Your task to perform on an android device: What does the iPhone 8 look like? Image 0: 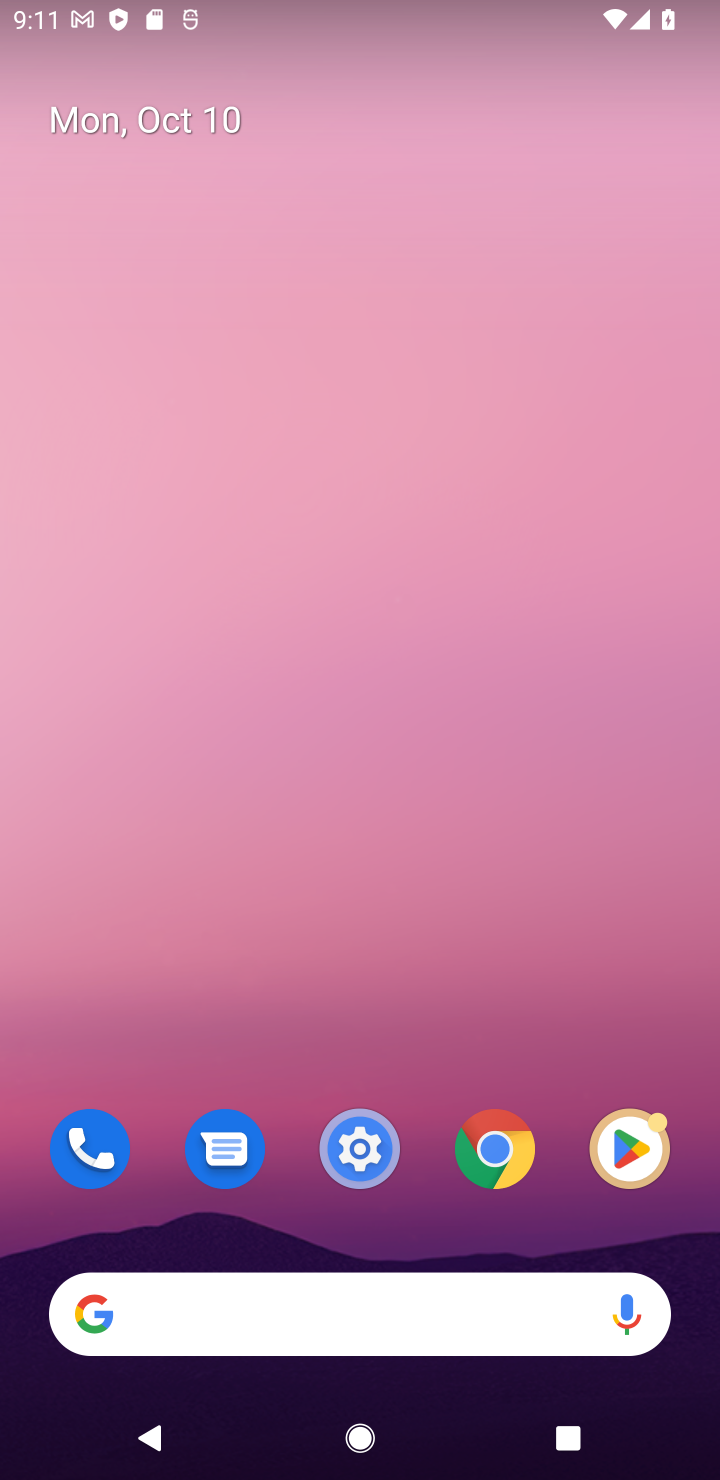
Step 0: click (355, 1317)
Your task to perform on an android device: What does the iPhone 8 look like? Image 1: 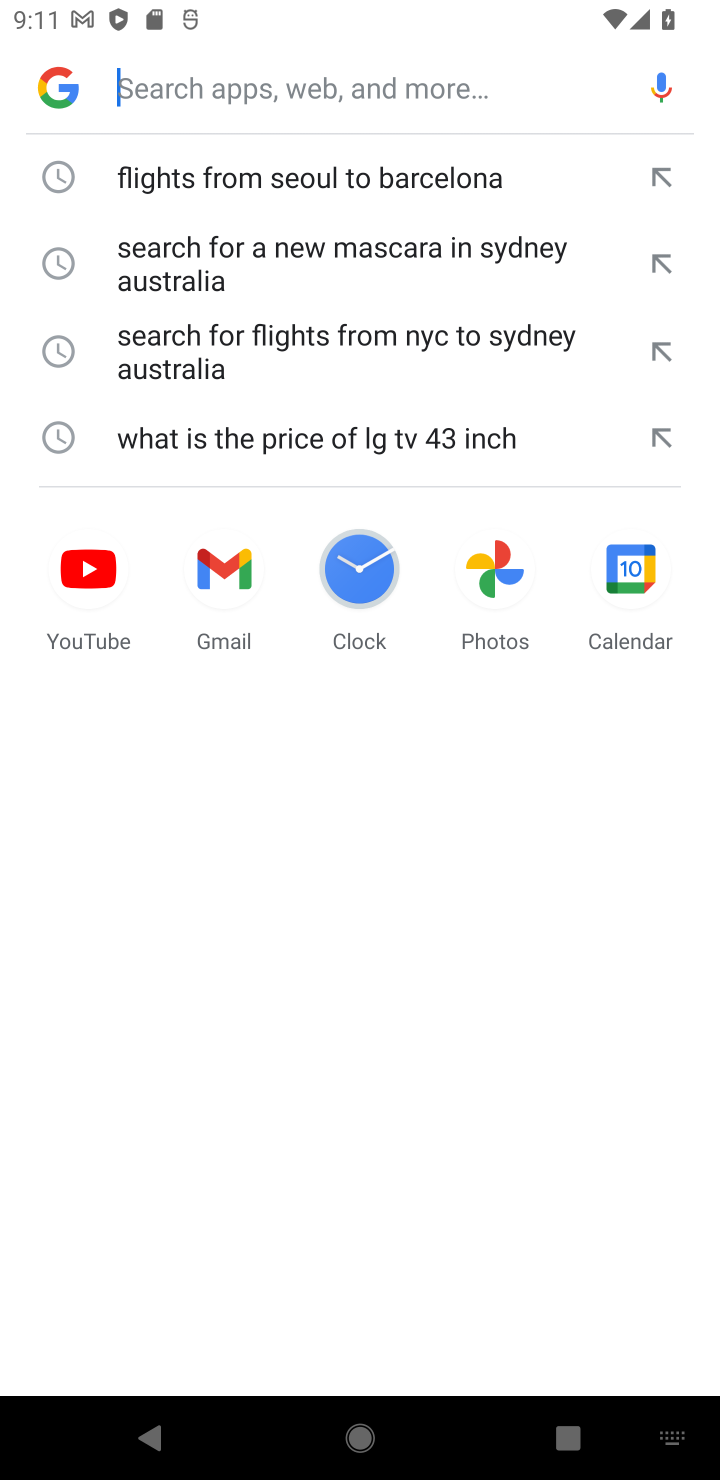
Step 1: type "What does the iPhone 8 look like?"
Your task to perform on an android device: What does the iPhone 8 look like? Image 2: 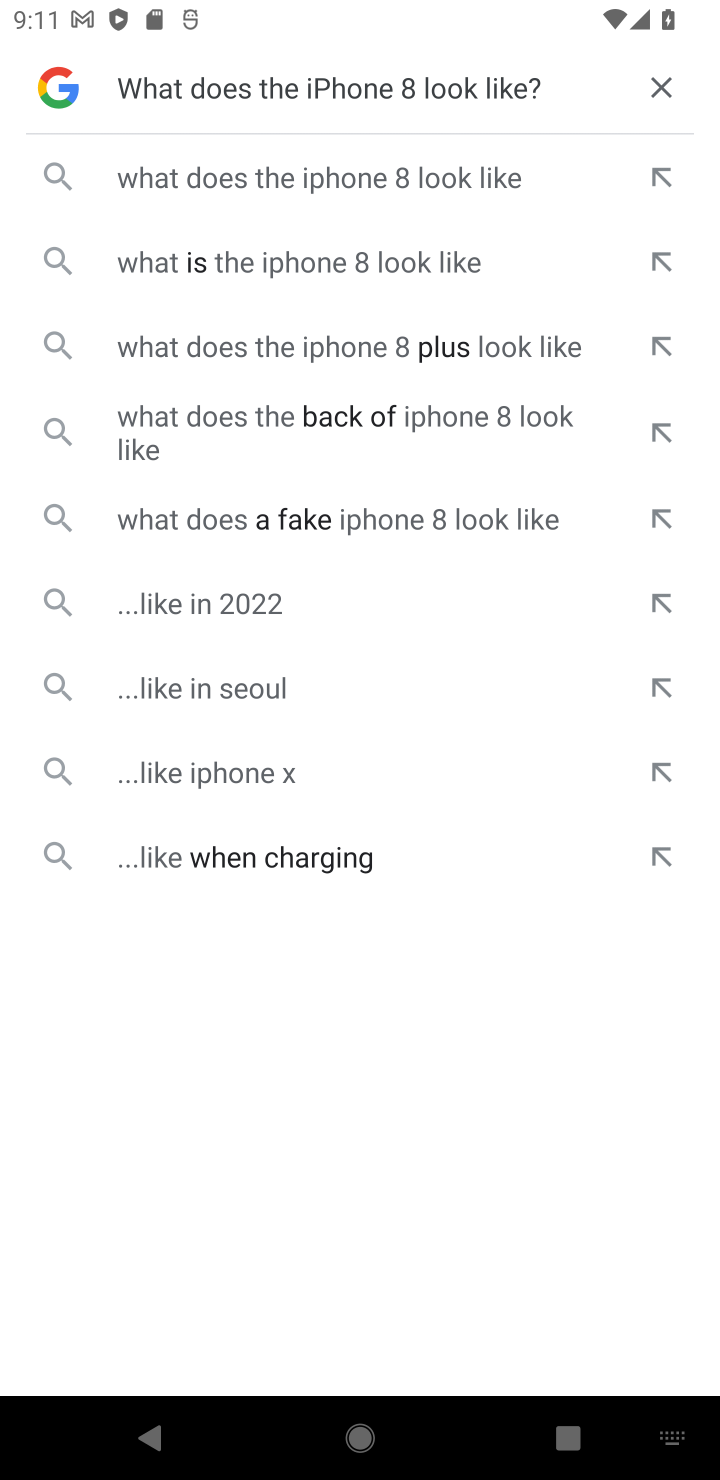
Step 2: click (349, 185)
Your task to perform on an android device: What does the iPhone 8 look like? Image 3: 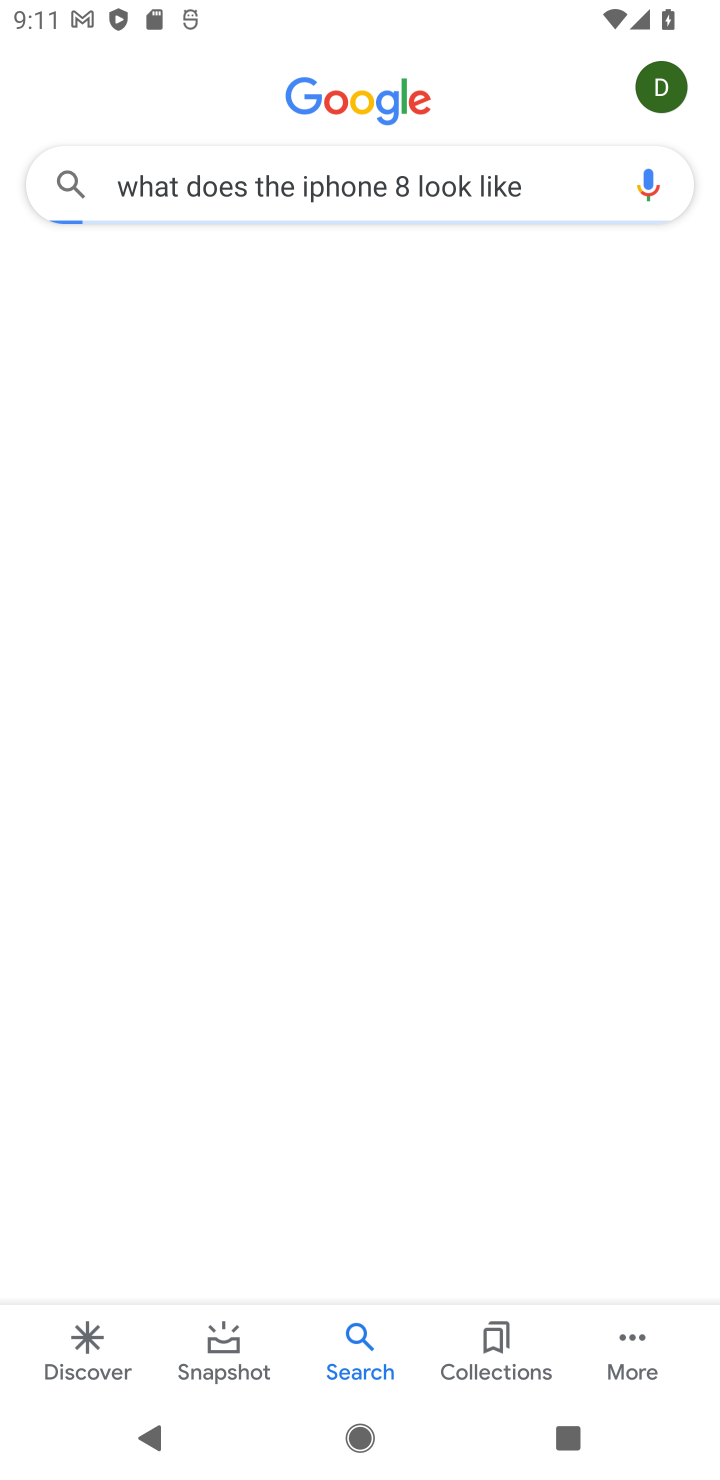
Step 3: task complete